Your task to perform on an android device: When is my next meeting? Image 0: 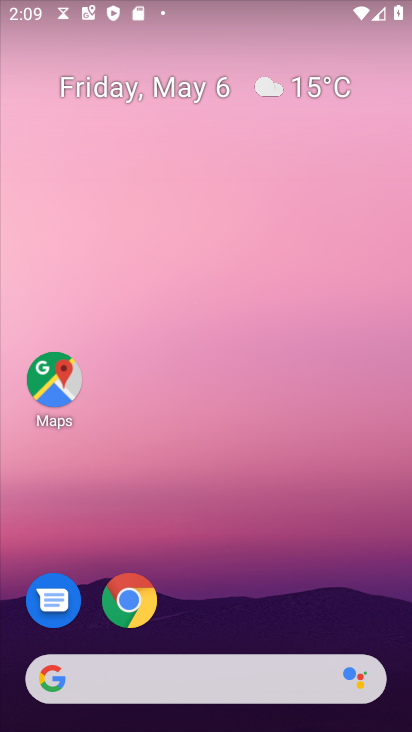
Step 0: drag from (211, 525) to (180, 10)
Your task to perform on an android device: When is my next meeting? Image 1: 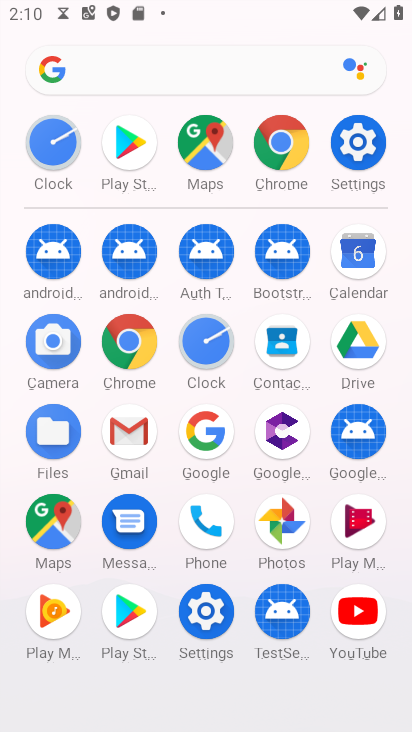
Step 1: click (357, 247)
Your task to perform on an android device: When is my next meeting? Image 2: 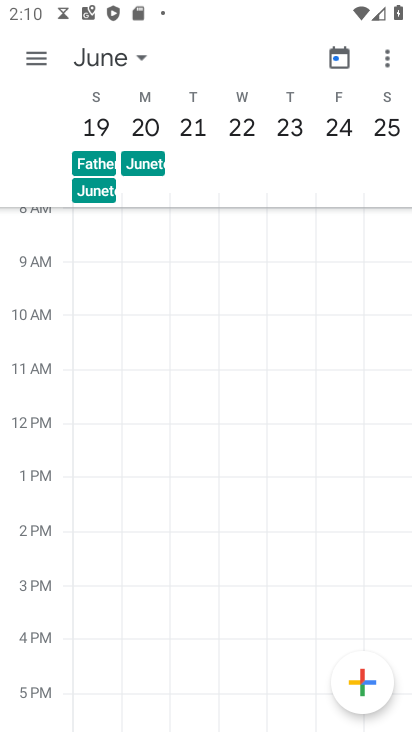
Step 2: click (31, 59)
Your task to perform on an android device: When is my next meeting? Image 3: 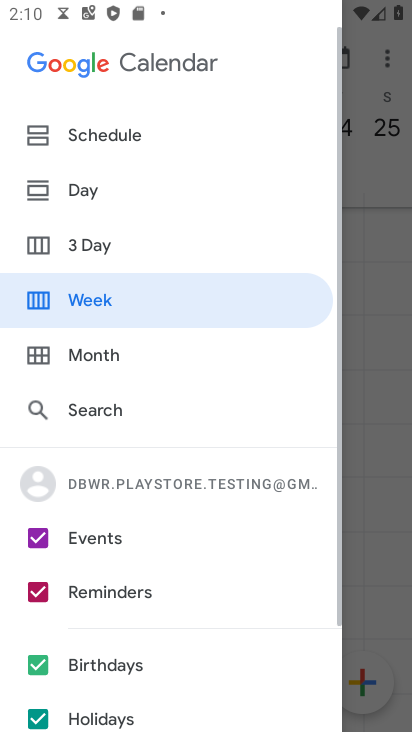
Step 3: drag from (258, 542) to (247, 125)
Your task to perform on an android device: When is my next meeting? Image 4: 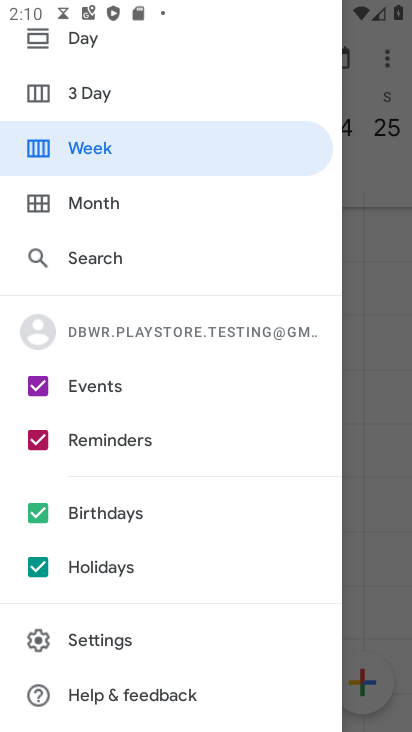
Step 4: drag from (208, 595) to (234, 123)
Your task to perform on an android device: When is my next meeting? Image 5: 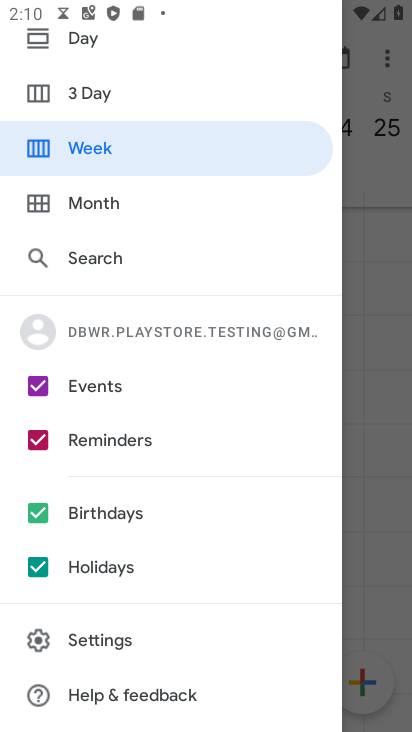
Step 5: drag from (199, 618) to (221, 183)
Your task to perform on an android device: When is my next meeting? Image 6: 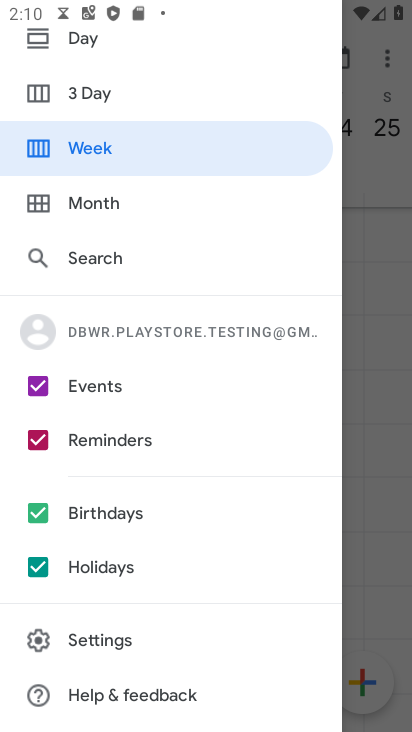
Step 6: drag from (161, 102) to (184, 639)
Your task to perform on an android device: When is my next meeting? Image 7: 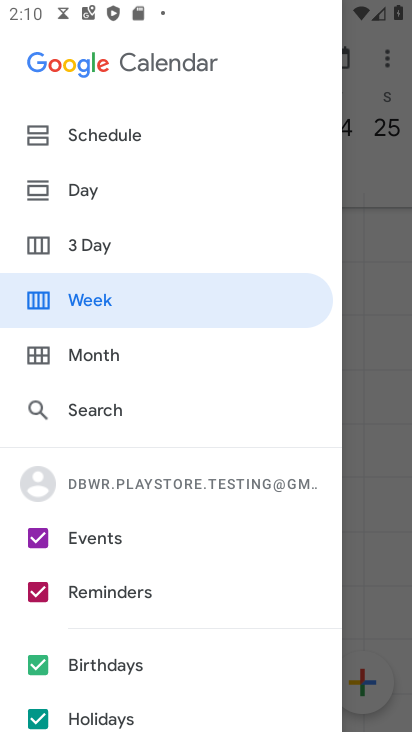
Step 7: click (84, 131)
Your task to perform on an android device: When is my next meeting? Image 8: 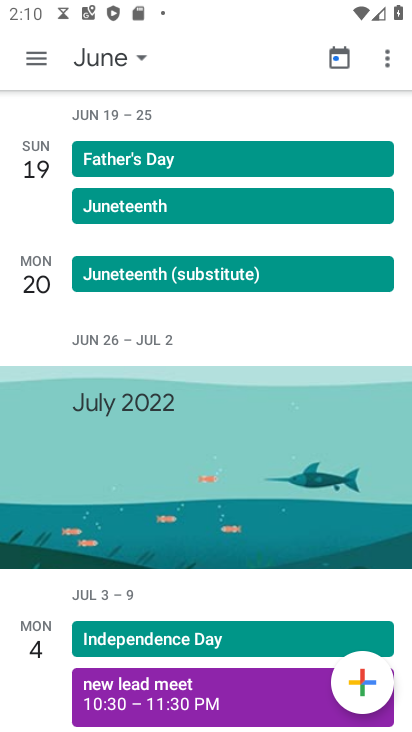
Step 8: drag from (208, 521) to (253, 137)
Your task to perform on an android device: When is my next meeting? Image 9: 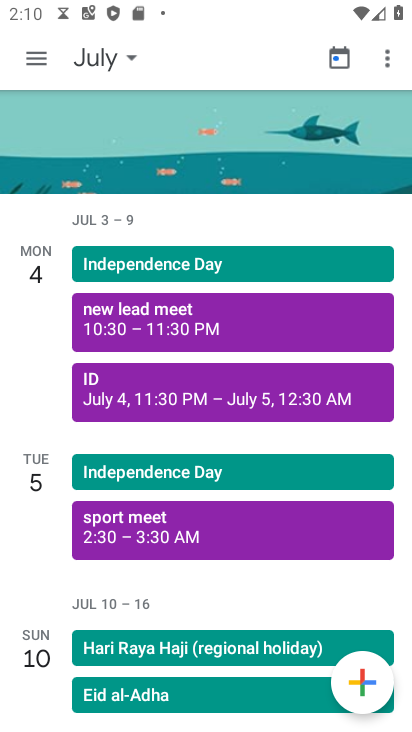
Step 9: click (34, 51)
Your task to perform on an android device: When is my next meeting? Image 10: 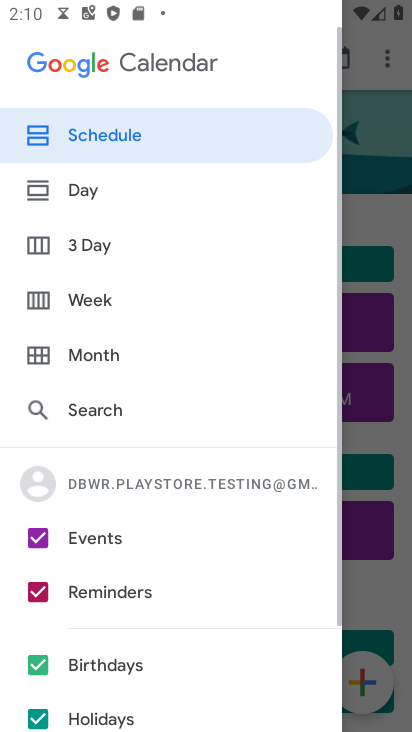
Step 10: click (99, 133)
Your task to perform on an android device: When is my next meeting? Image 11: 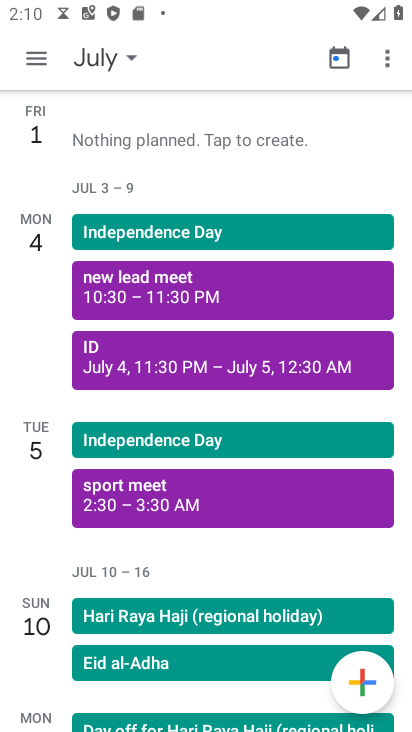
Step 11: task complete